Your task to perform on an android device: Open the stopwatch Image 0: 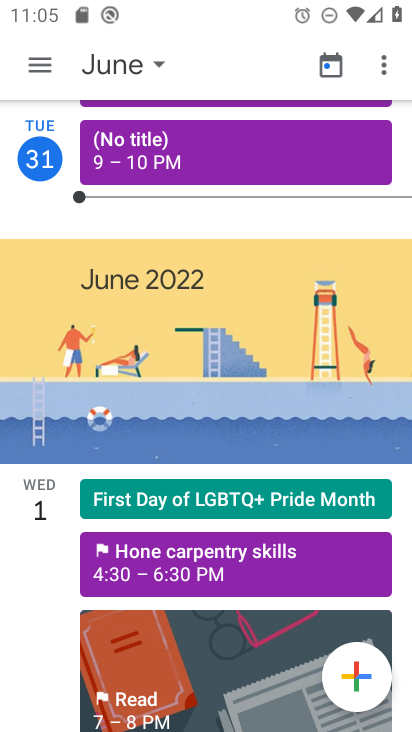
Step 0: press home button
Your task to perform on an android device: Open the stopwatch Image 1: 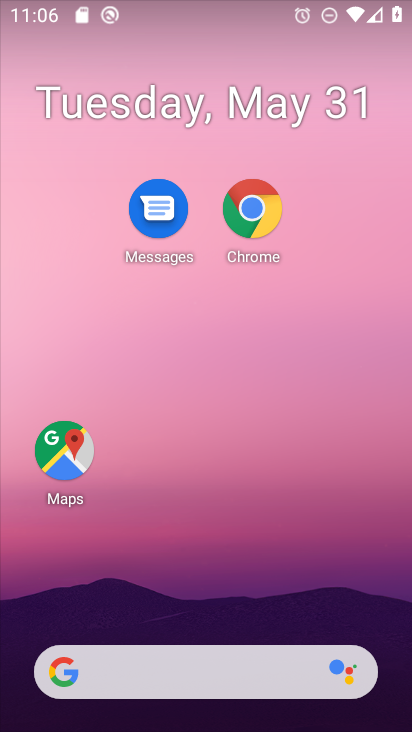
Step 1: drag from (211, 615) to (221, 48)
Your task to perform on an android device: Open the stopwatch Image 2: 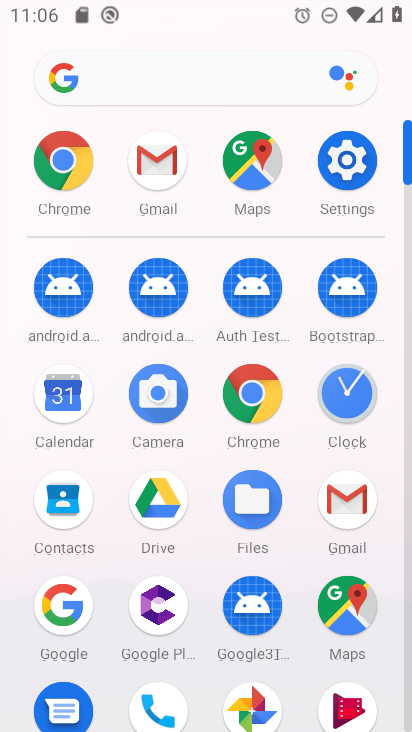
Step 2: click (343, 381)
Your task to perform on an android device: Open the stopwatch Image 3: 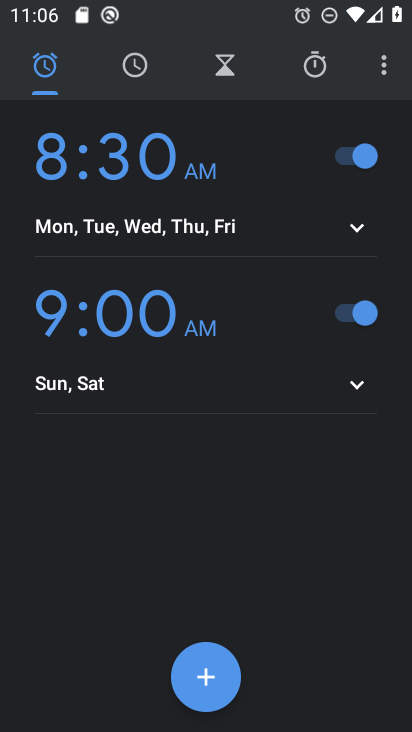
Step 3: click (316, 64)
Your task to perform on an android device: Open the stopwatch Image 4: 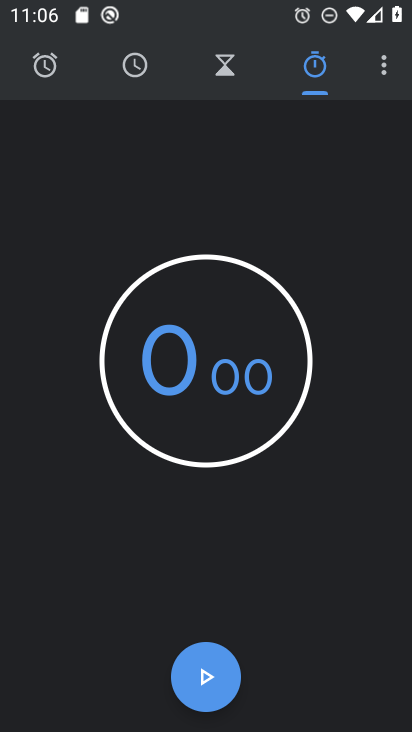
Step 4: click (201, 670)
Your task to perform on an android device: Open the stopwatch Image 5: 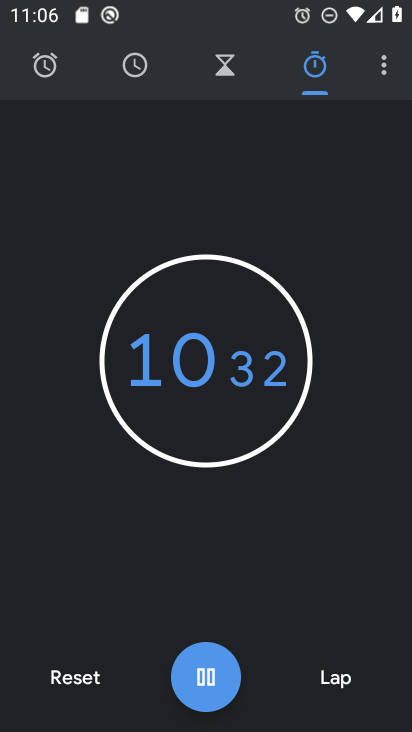
Step 5: task complete